Your task to perform on an android device: Go to Google maps Image 0: 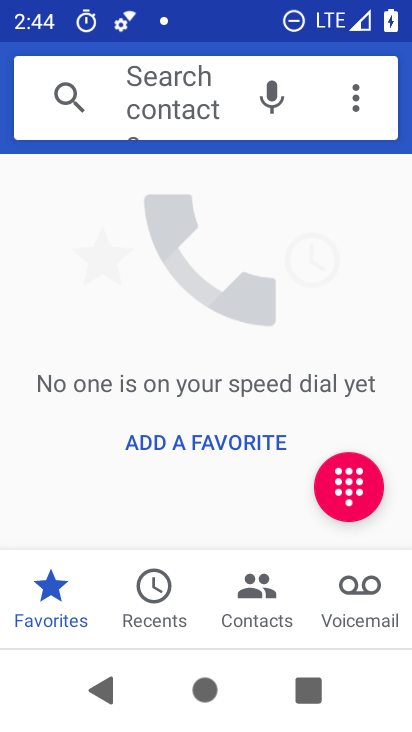
Step 0: press home button
Your task to perform on an android device: Go to Google maps Image 1: 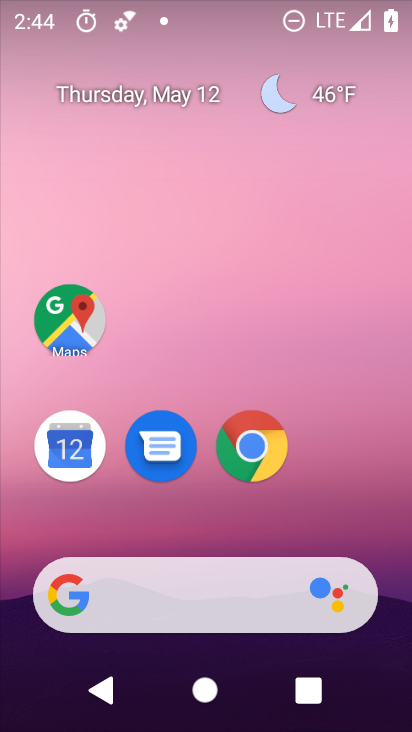
Step 1: drag from (211, 525) to (213, 183)
Your task to perform on an android device: Go to Google maps Image 2: 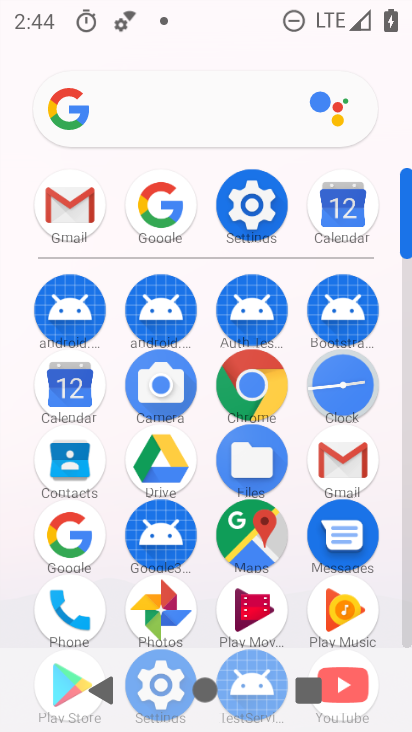
Step 2: click (235, 539)
Your task to perform on an android device: Go to Google maps Image 3: 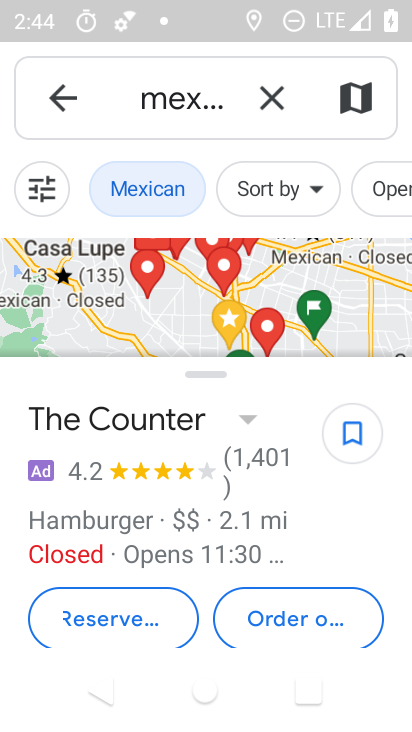
Step 3: task complete